Your task to perform on an android device: open app "Facebook Lite" Image 0: 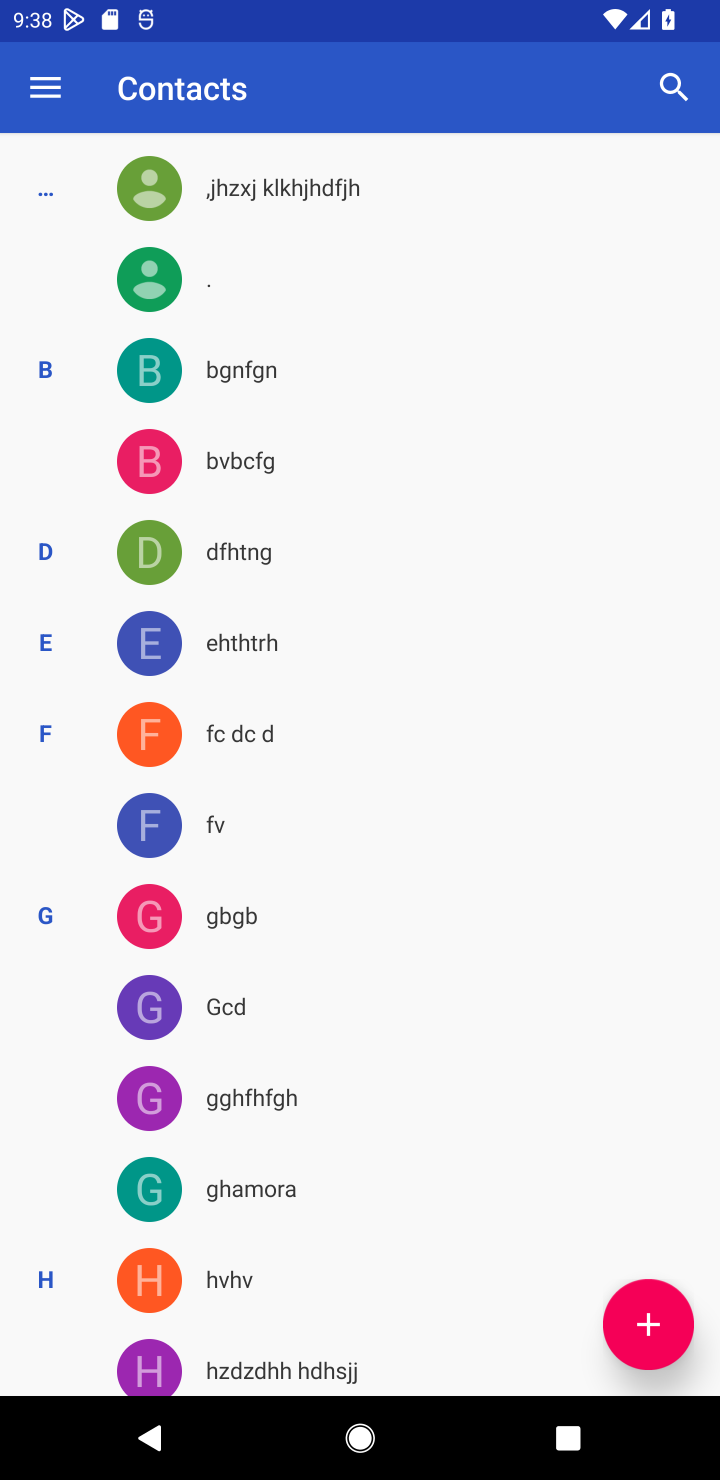
Step 0: press home button
Your task to perform on an android device: open app "Facebook Lite" Image 1: 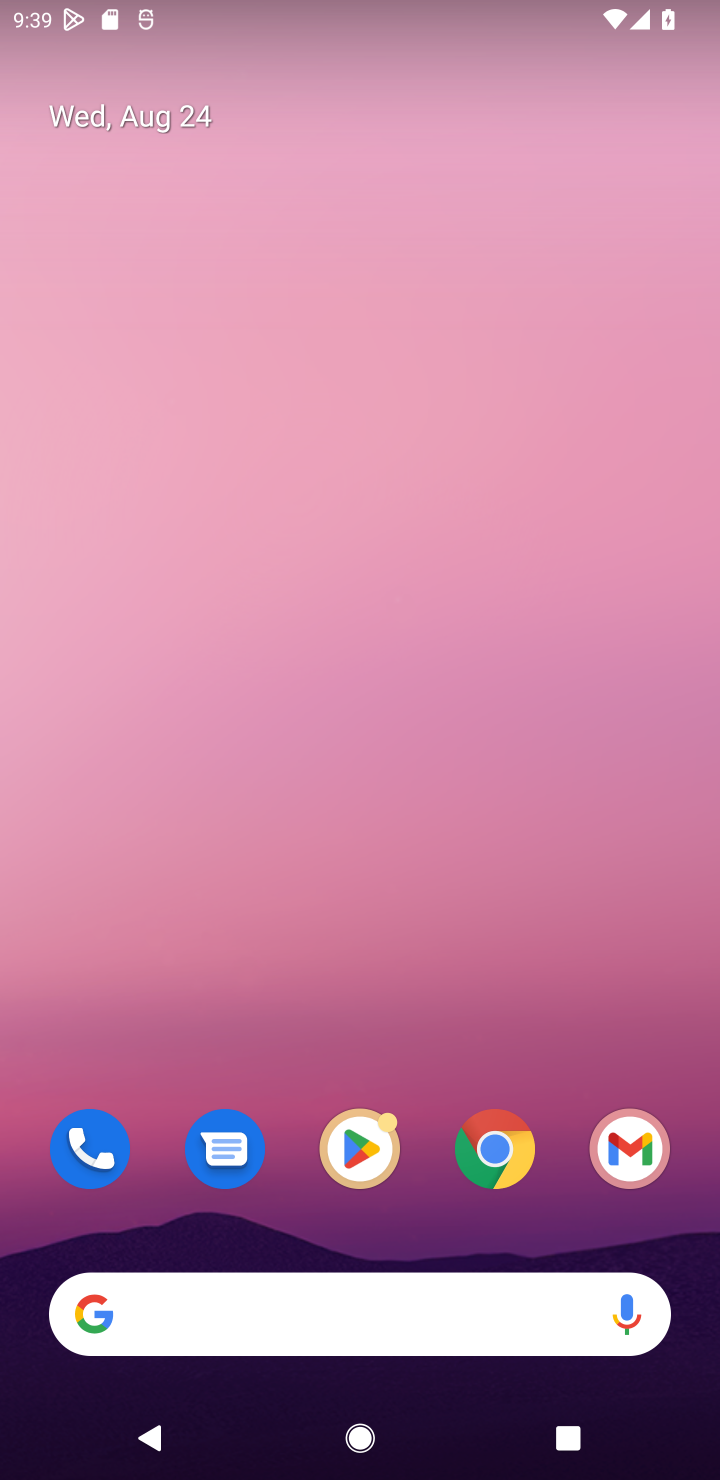
Step 1: drag from (316, 578) to (38, 28)
Your task to perform on an android device: open app "Facebook Lite" Image 2: 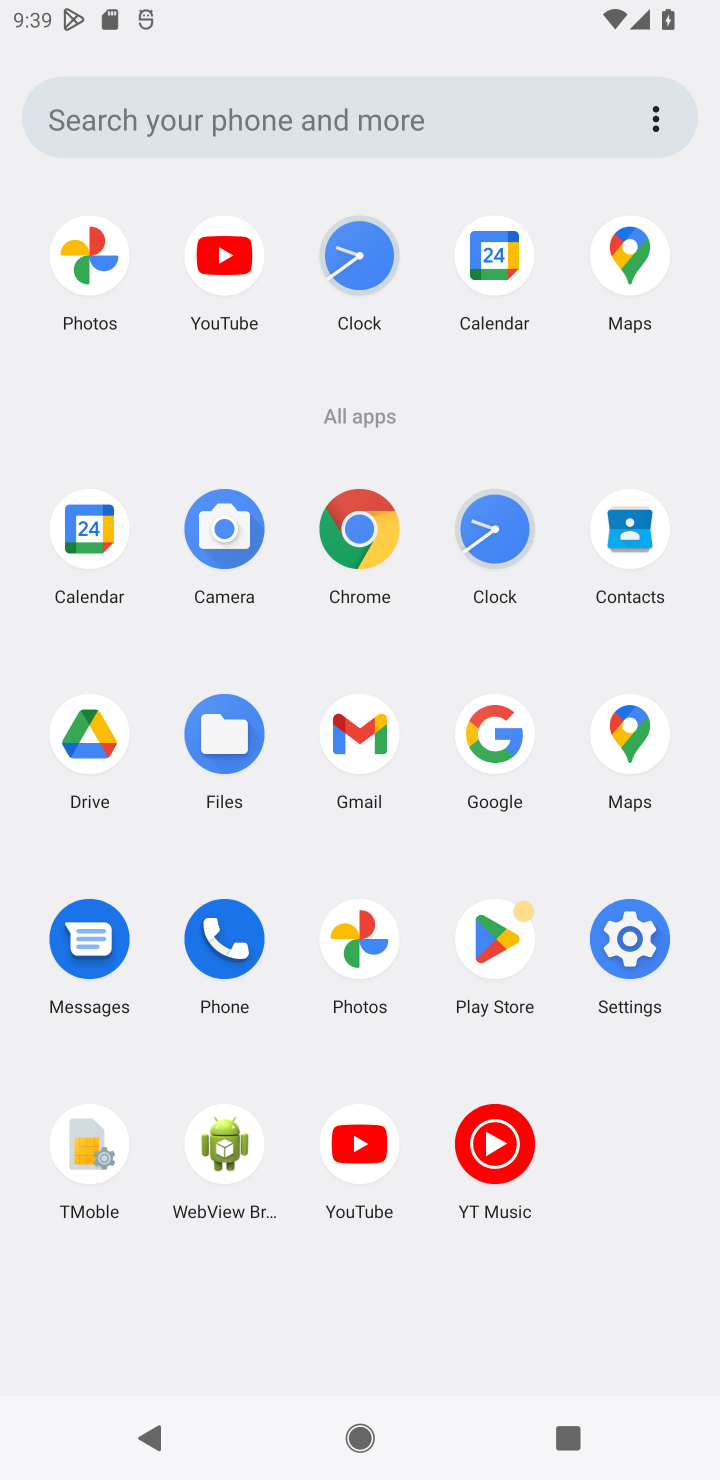
Step 2: click (478, 949)
Your task to perform on an android device: open app "Facebook Lite" Image 3: 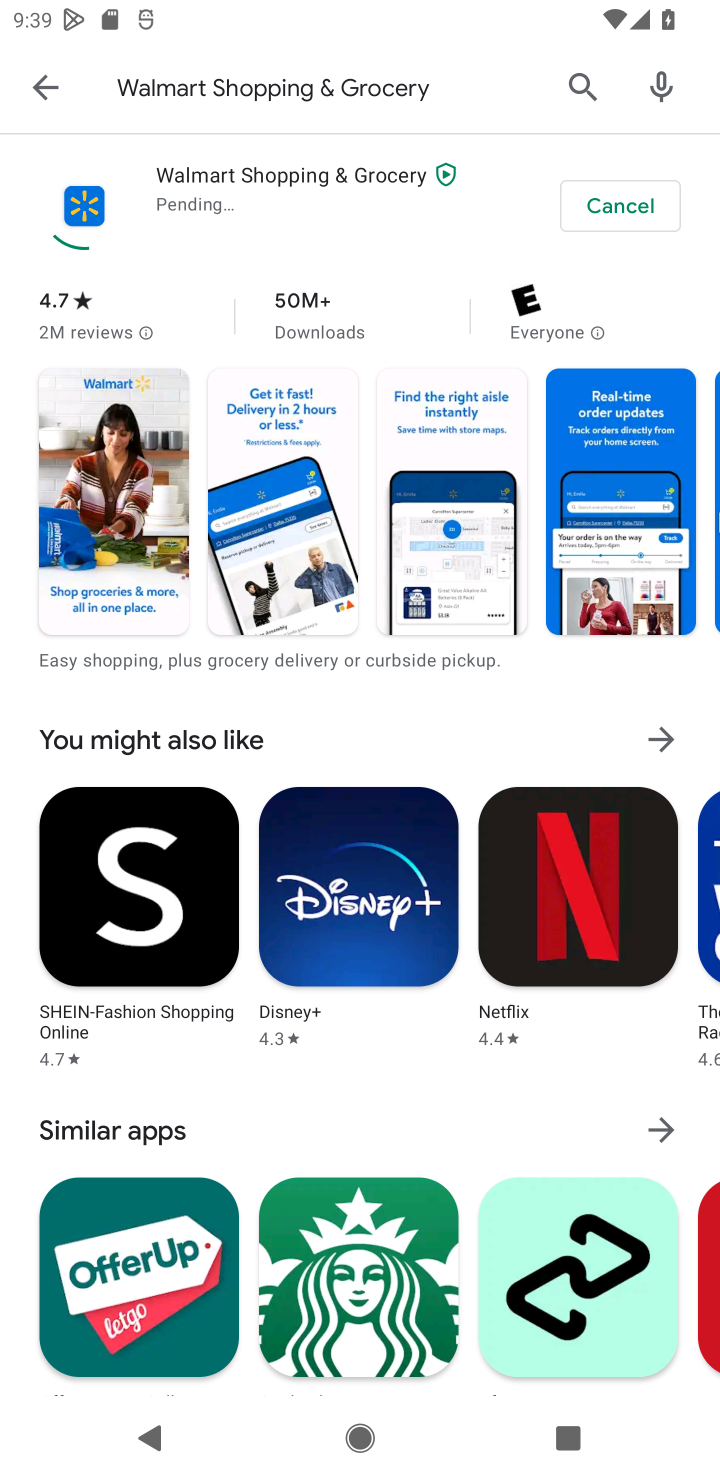
Step 3: press back button
Your task to perform on an android device: open app "Facebook Lite" Image 4: 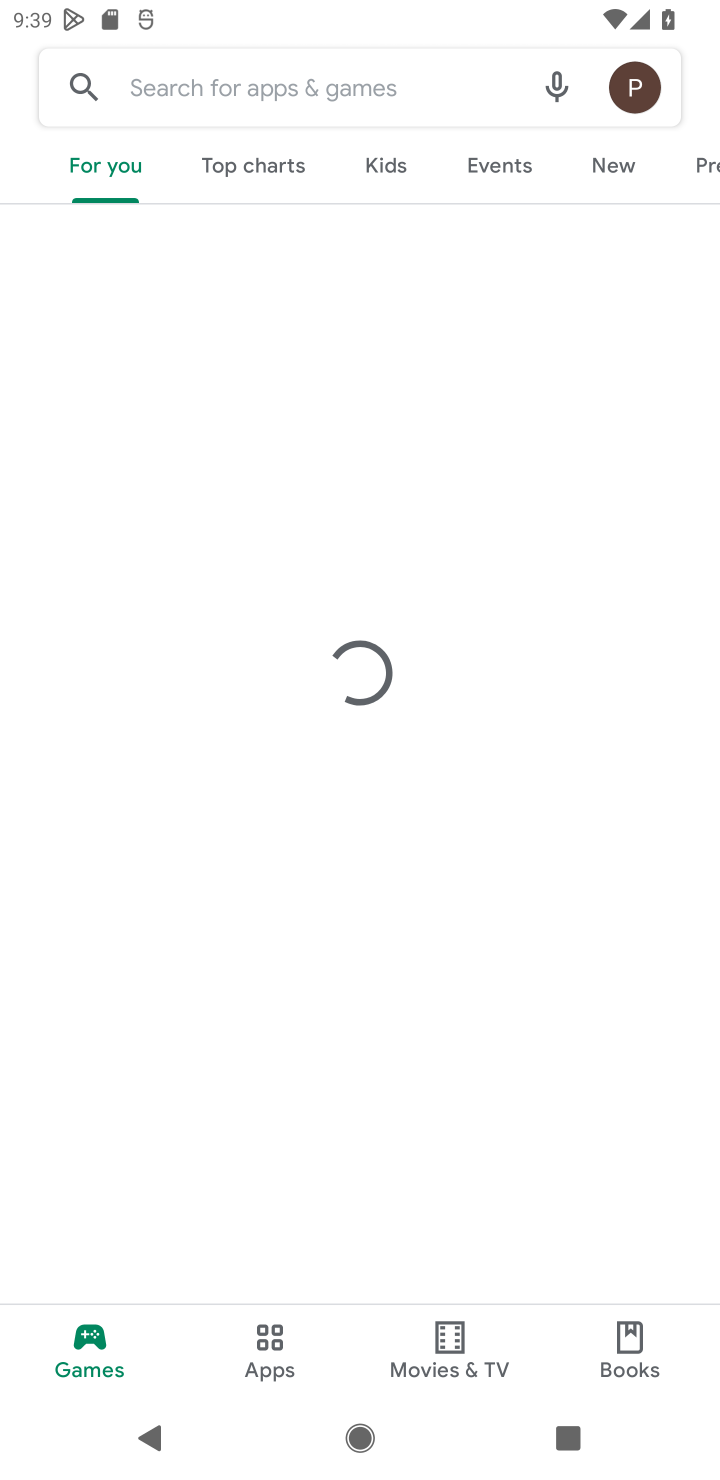
Step 4: click (337, 88)
Your task to perform on an android device: open app "Facebook Lite" Image 5: 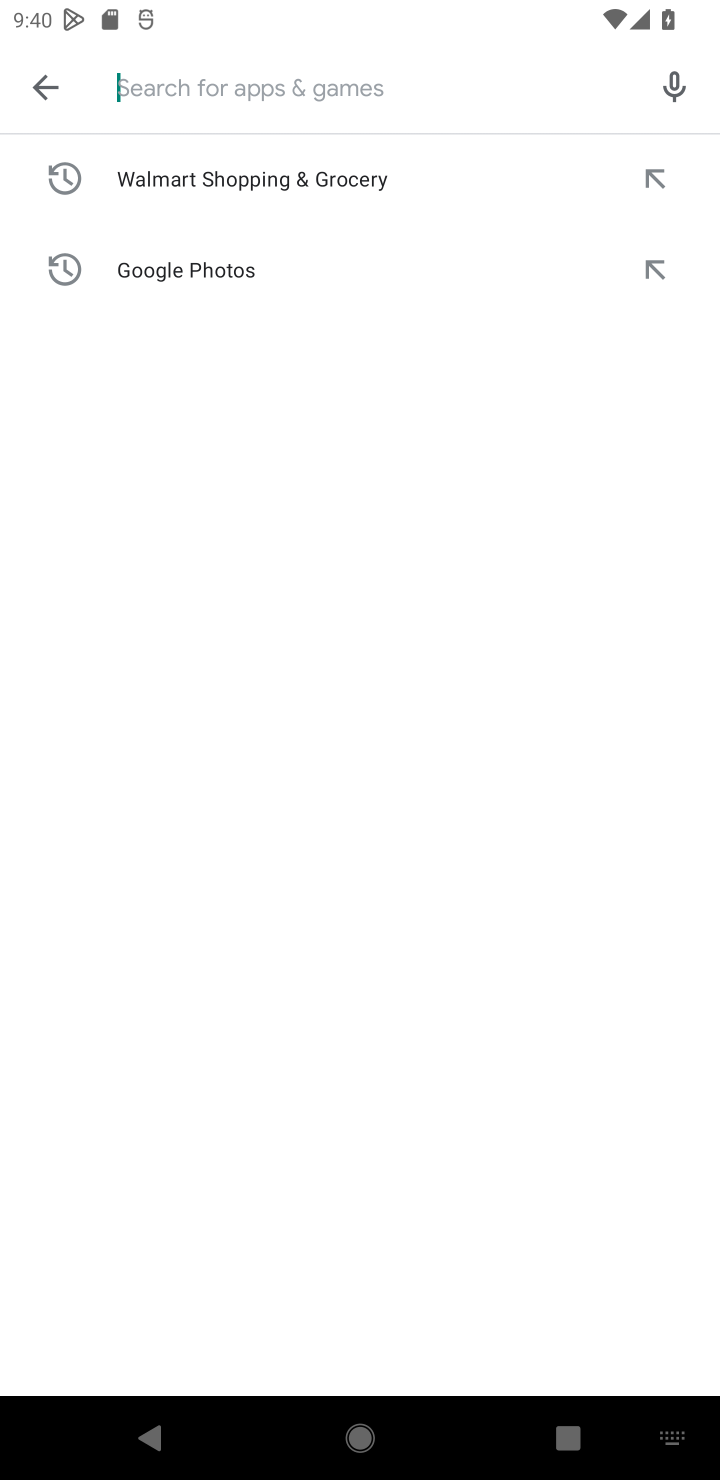
Step 5: type "Facebook Lite"
Your task to perform on an android device: open app "Facebook Lite" Image 6: 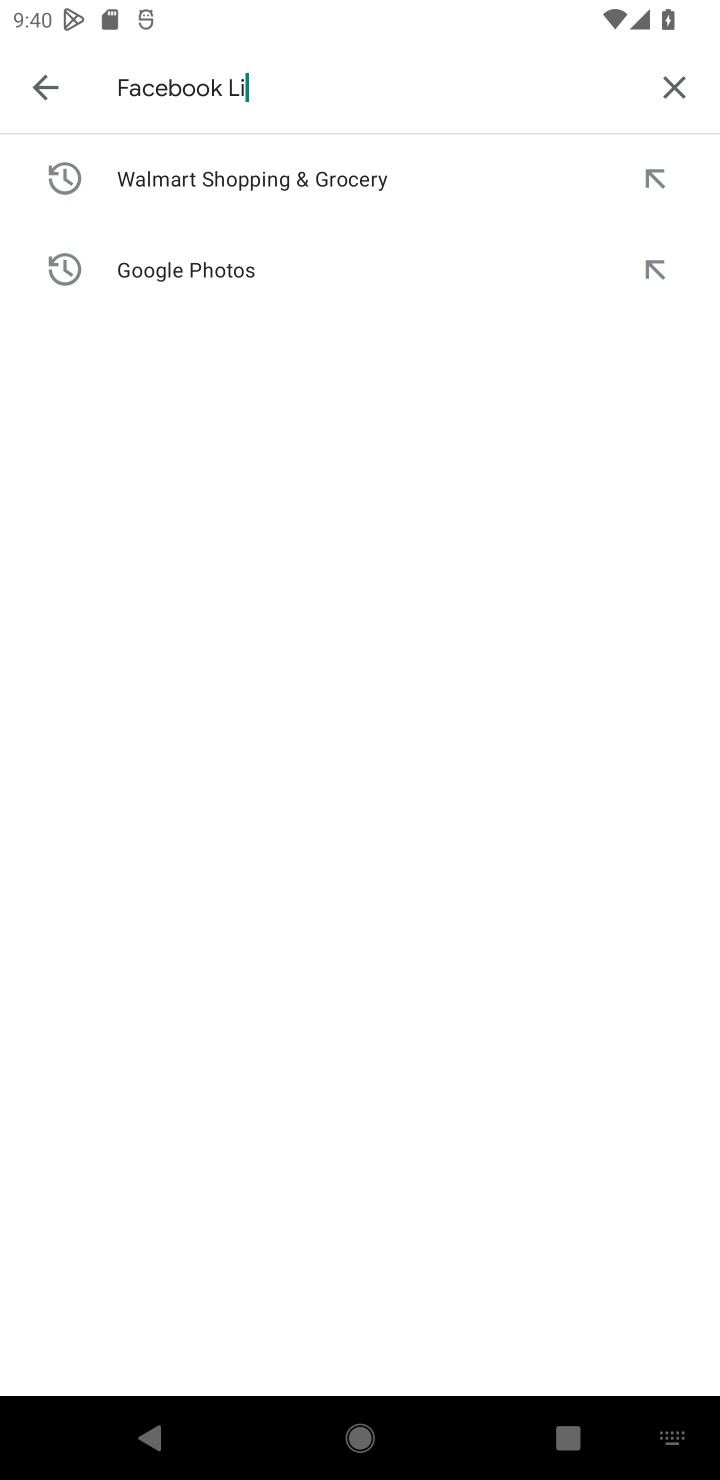
Step 6: press enter
Your task to perform on an android device: open app "Facebook Lite" Image 7: 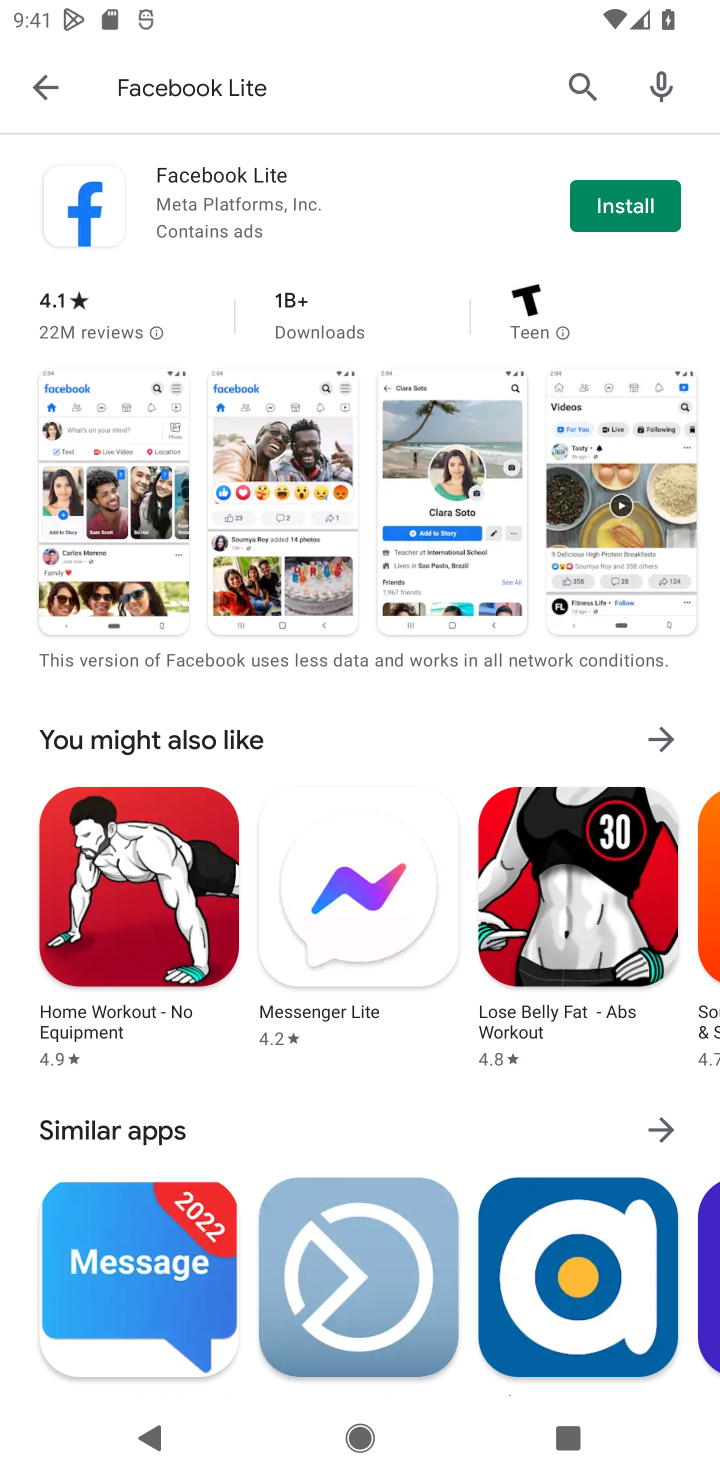
Step 7: task complete